Your task to perform on an android device: Open wifi settings Image 0: 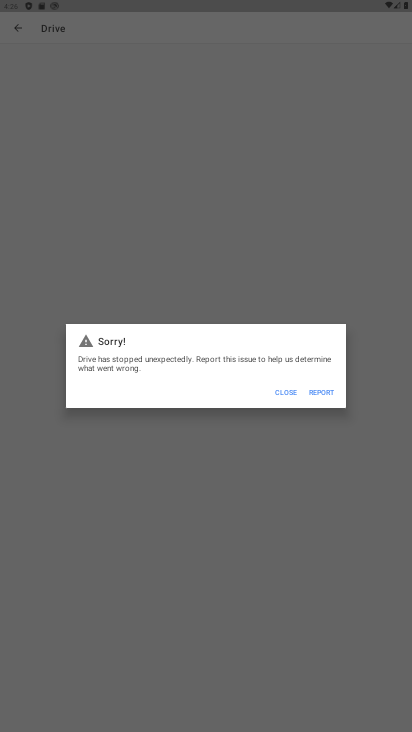
Step 0: press home button
Your task to perform on an android device: Open wifi settings Image 1: 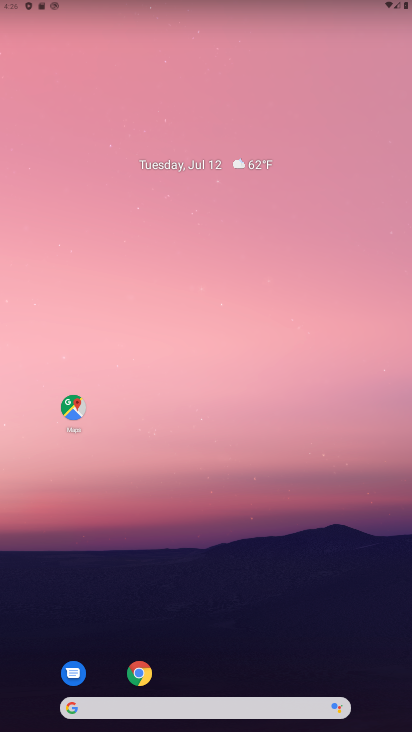
Step 1: drag from (245, 729) to (240, 330)
Your task to perform on an android device: Open wifi settings Image 2: 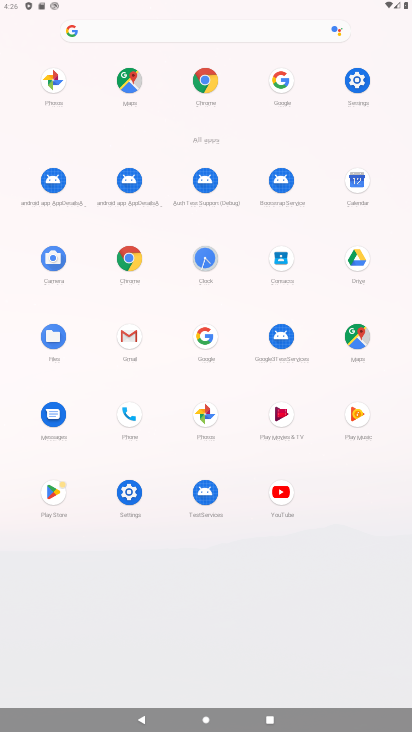
Step 2: click (355, 87)
Your task to perform on an android device: Open wifi settings Image 3: 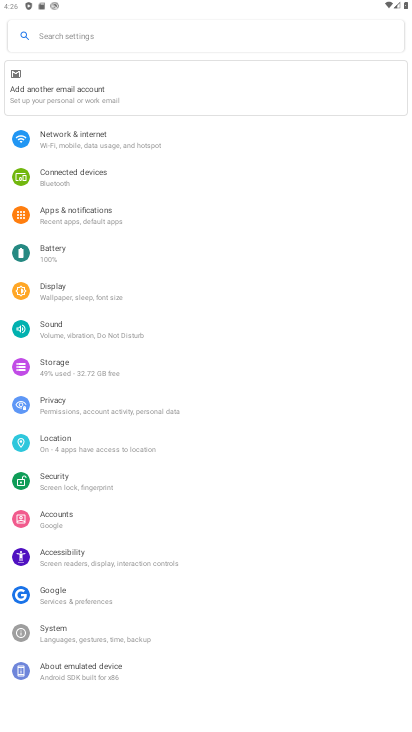
Step 3: click (64, 147)
Your task to perform on an android device: Open wifi settings Image 4: 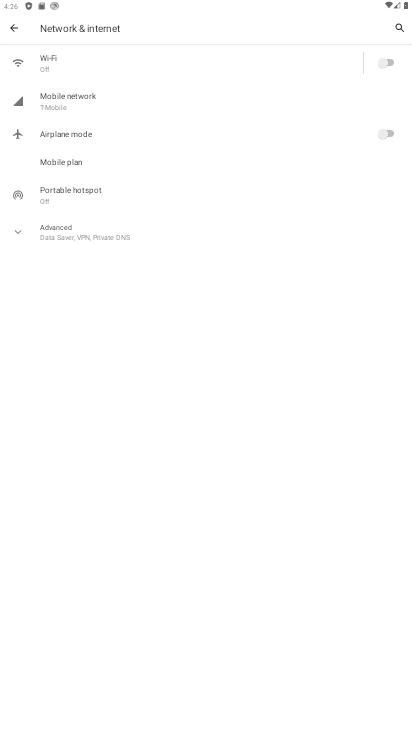
Step 4: click (46, 61)
Your task to perform on an android device: Open wifi settings Image 5: 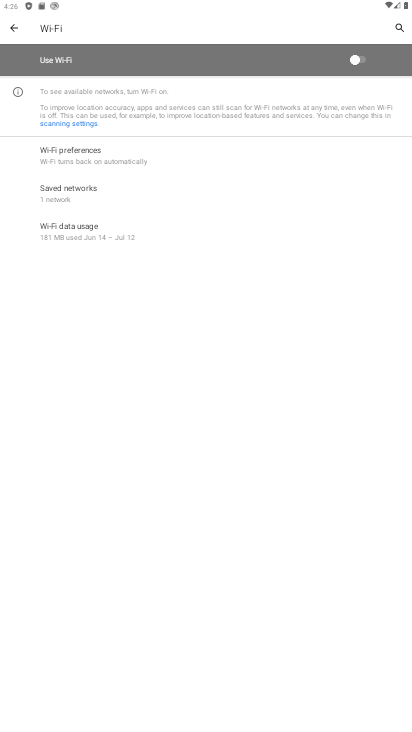
Step 5: task complete